Your task to perform on an android device: open chrome and create a bookmark for the current page Image 0: 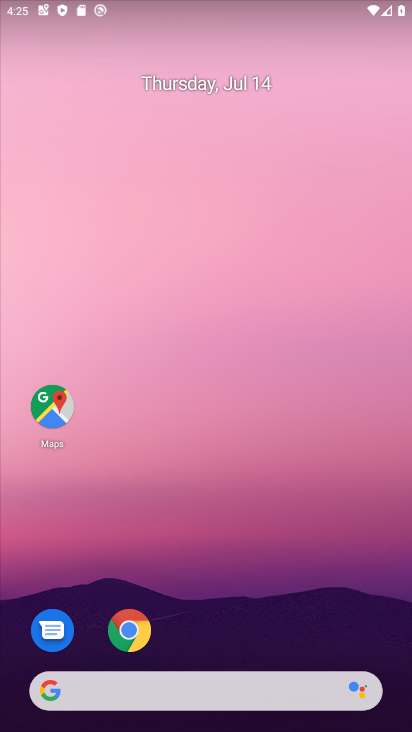
Step 0: click (126, 629)
Your task to perform on an android device: open chrome and create a bookmark for the current page Image 1: 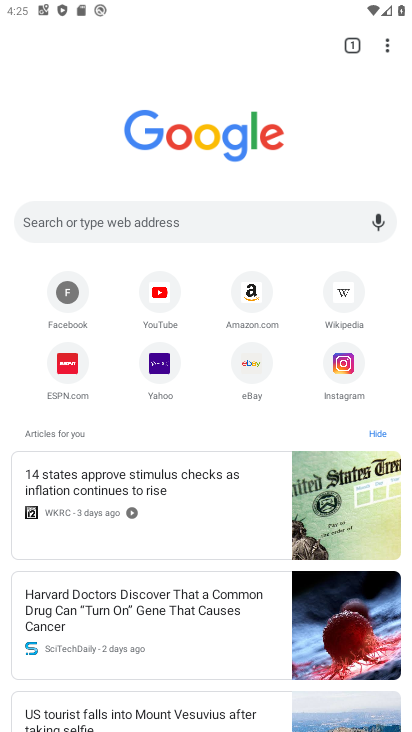
Step 1: task complete